Your task to perform on an android device: open sync settings in chrome Image 0: 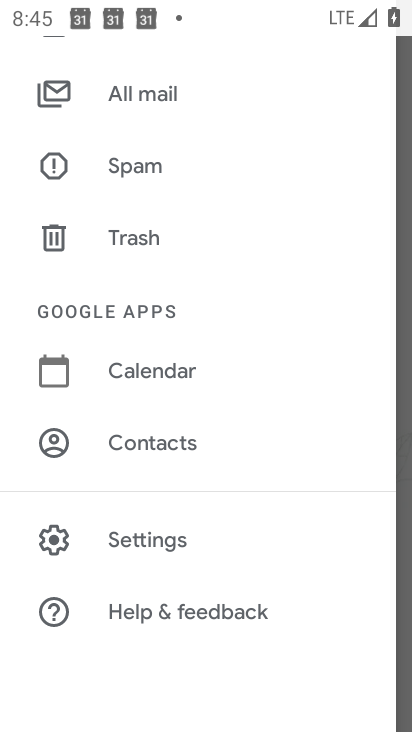
Step 0: press home button
Your task to perform on an android device: open sync settings in chrome Image 1: 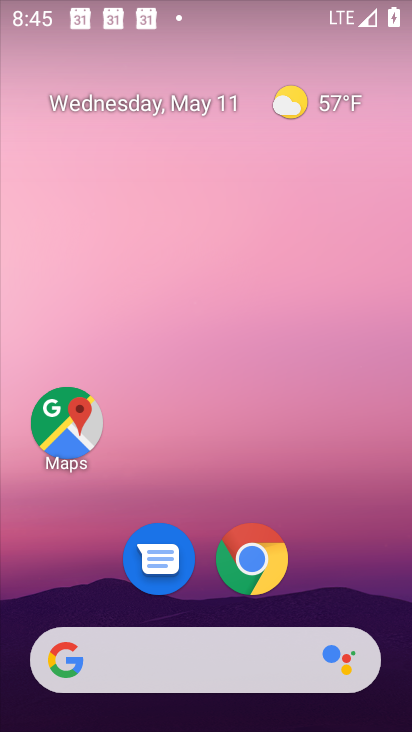
Step 1: drag from (372, 569) to (374, 66)
Your task to perform on an android device: open sync settings in chrome Image 2: 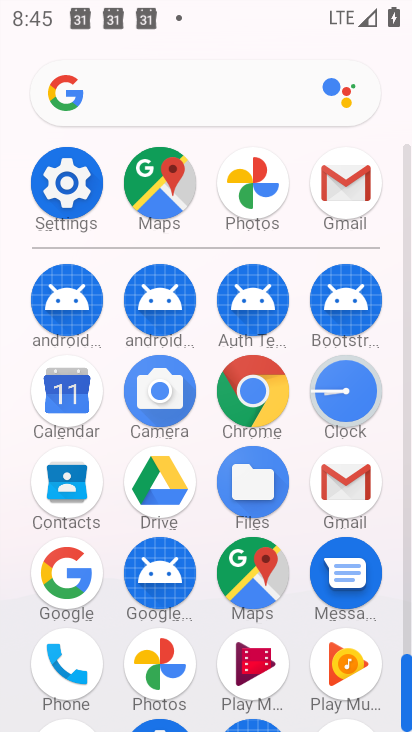
Step 2: click (247, 420)
Your task to perform on an android device: open sync settings in chrome Image 3: 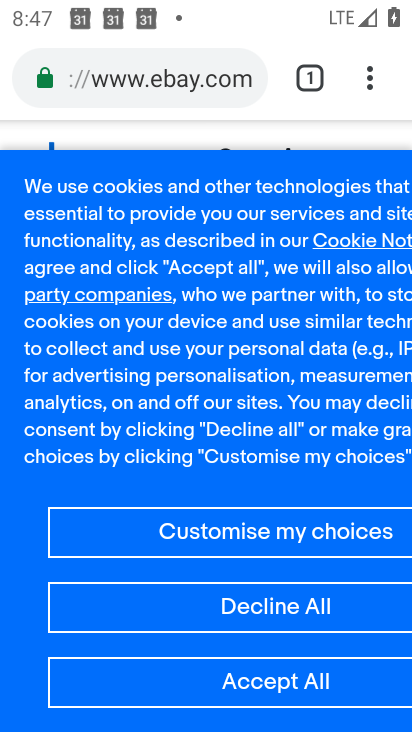
Step 3: press home button
Your task to perform on an android device: open sync settings in chrome Image 4: 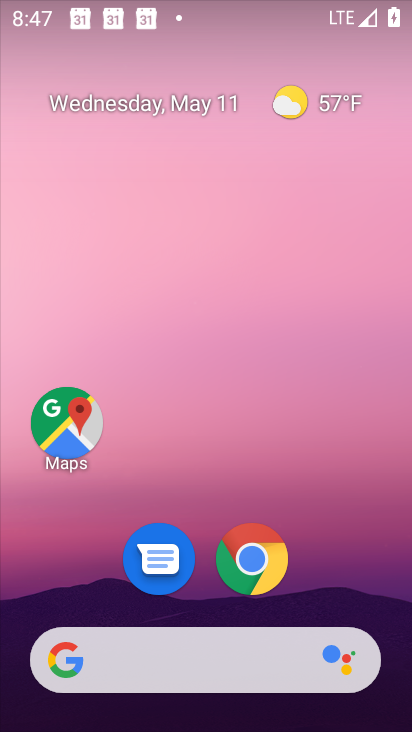
Step 4: click (274, 564)
Your task to perform on an android device: open sync settings in chrome Image 5: 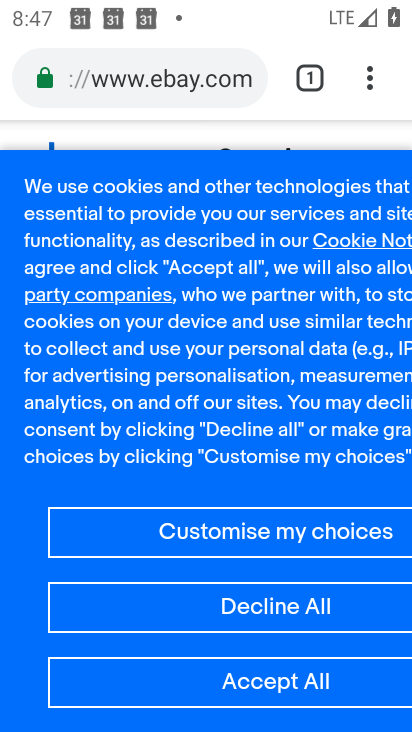
Step 5: drag from (363, 70) to (133, 629)
Your task to perform on an android device: open sync settings in chrome Image 6: 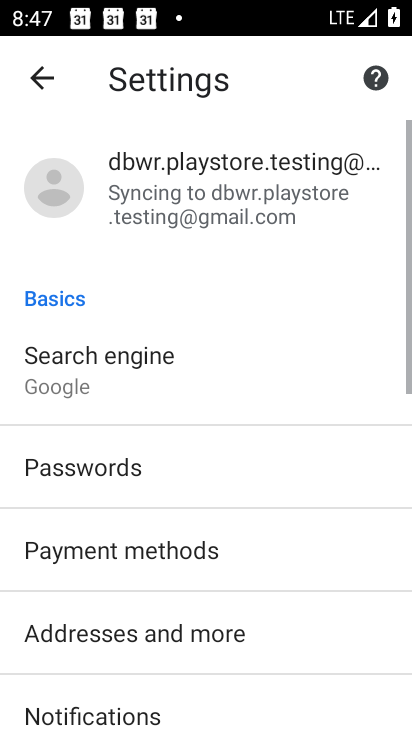
Step 6: click (165, 215)
Your task to perform on an android device: open sync settings in chrome Image 7: 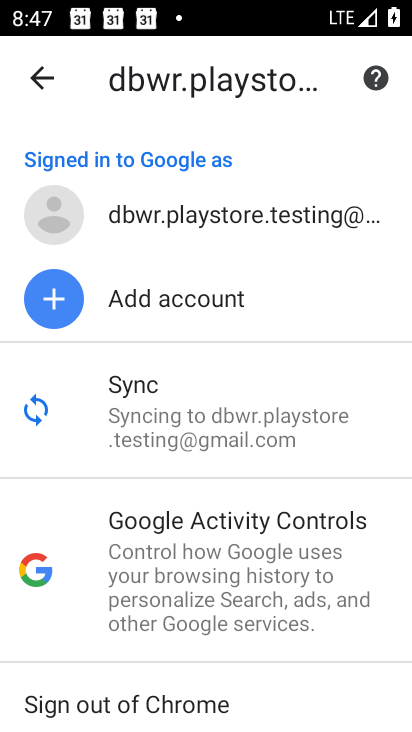
Step 7: click (159, 420)
Your task to perform on an android device: open sync settings in chrome Image 8: 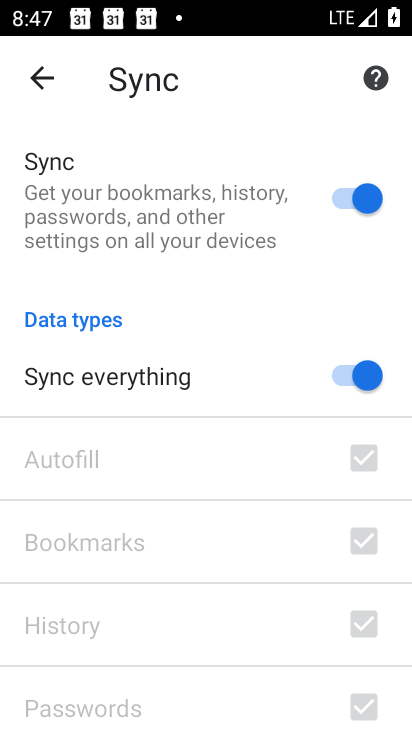
Step 8: task complete